Your task to perform on an android device: change alarm snooze length Image 0: 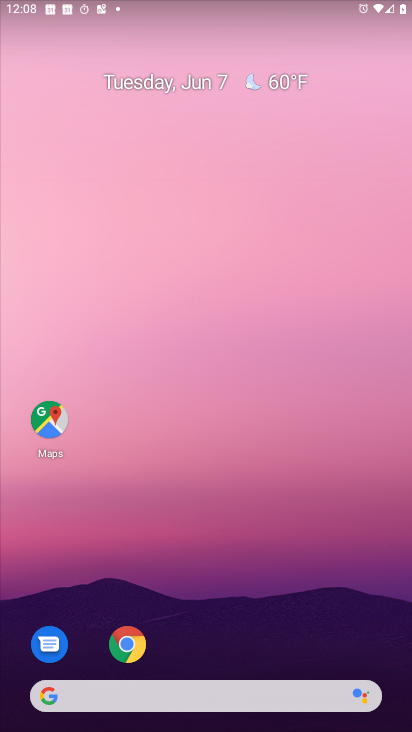
Step 0: drag from (171, 725) to (177, 57)
Your task to perform on an android device: change alarm snooze length Image 1: 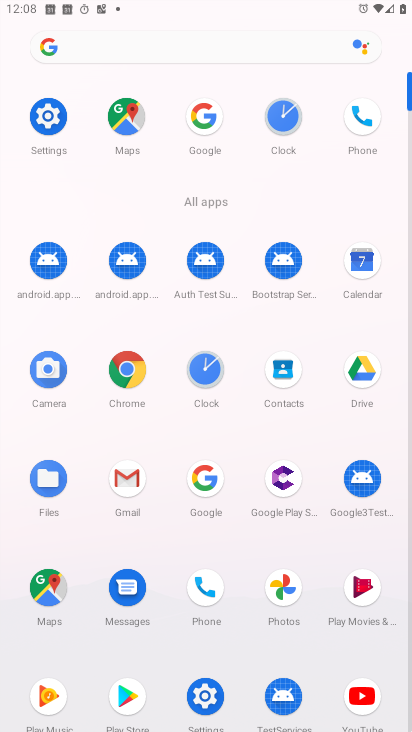
Step 1: click (202, 383)
Your task to perform on an android device: change alarm snooze length Image 2: 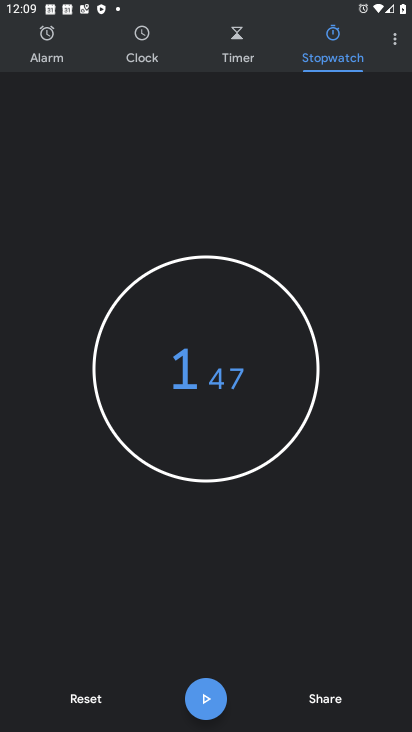
Step 2: click (390, 48)
Your task to perform on an android device: change alarm snooze length Image 3: 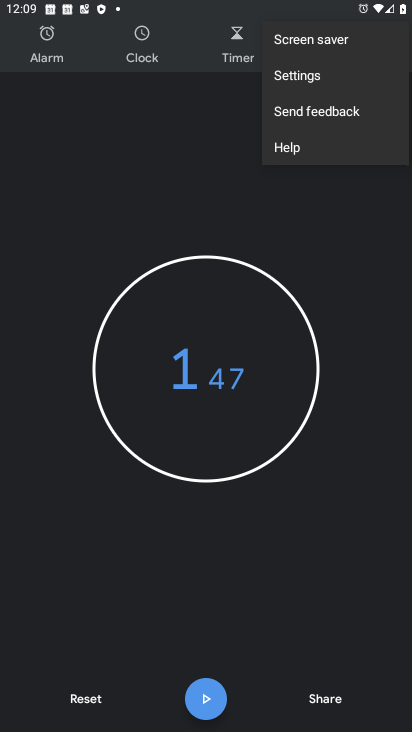
Step 3: click (313, 82)
Your task to perform on an android device: change alarm snooze length Image 4: 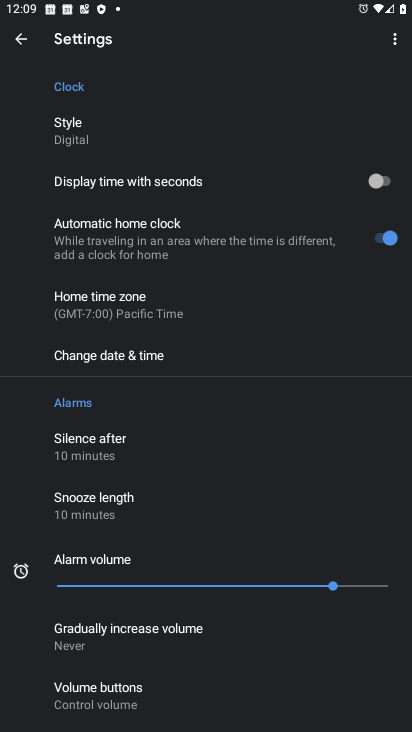
Step 4: click (183, 524)
Your task to perform on an android device: change alarm snooze length Image 5: 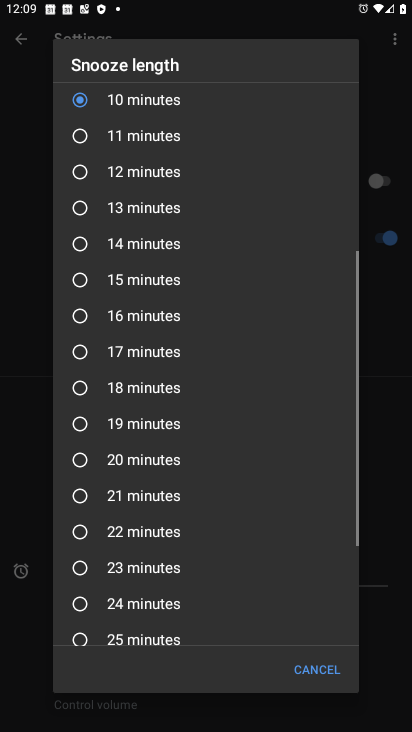
Step 5: click (141, 163)
Your task to perform on an android device: change alarm snooze length Image 6: 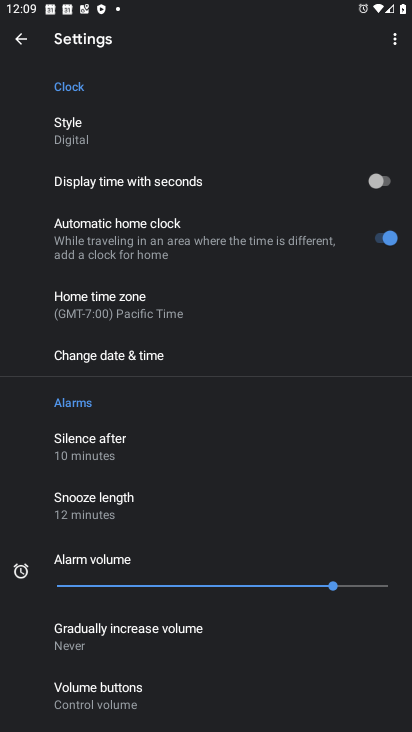
Step 6: task complete